Your task to perform on an android device: open chrome privacy settings Image 0: 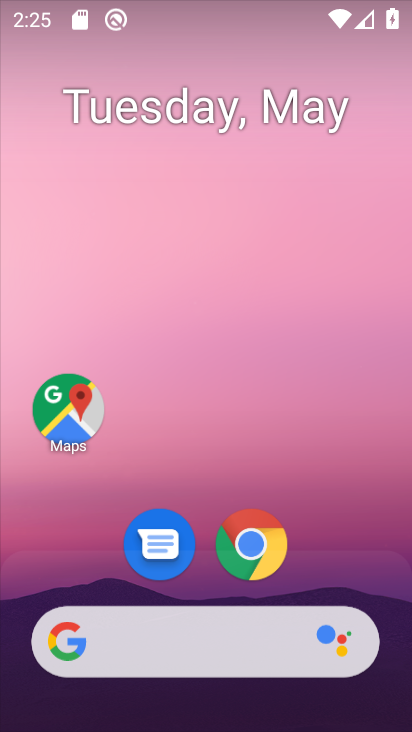
Step 0: click (252, 544)
Your task to perform on an android device: open chrome privacy settings Image 1: 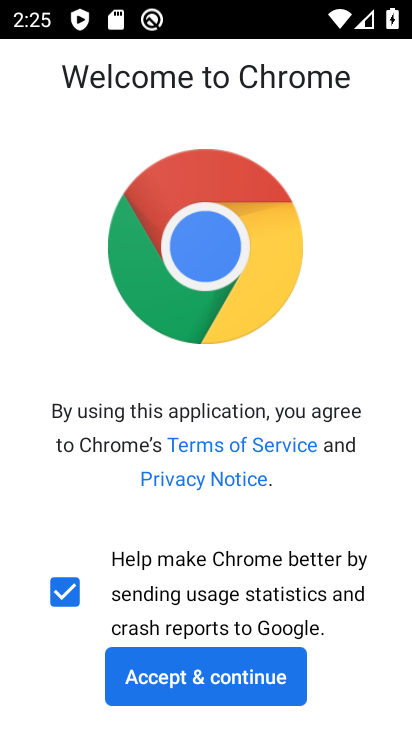
Step 1: click (197, 669)
Your task to perform on an android device: open chrome privacy settings Image 2: 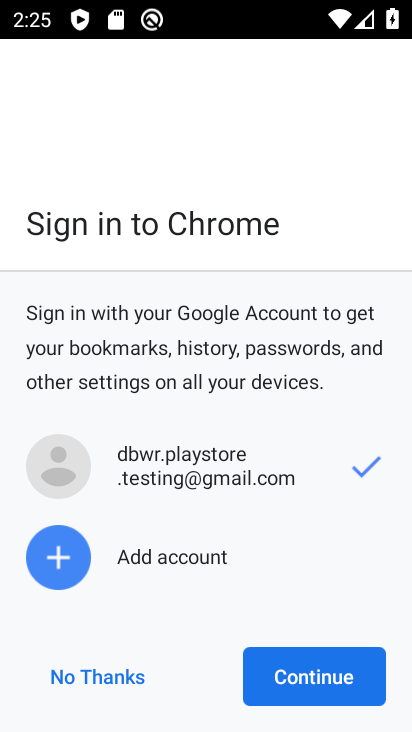
Step 2: click (306, 667)
Your task to perform on an android device: open chrome privacy settings Image 3: 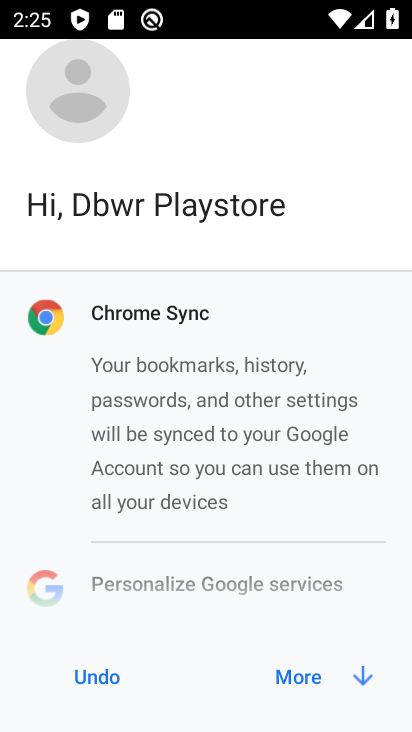
Step 3: click (306, 667)
Your task to perform on an android device: open chrome privacy settings Image 4: 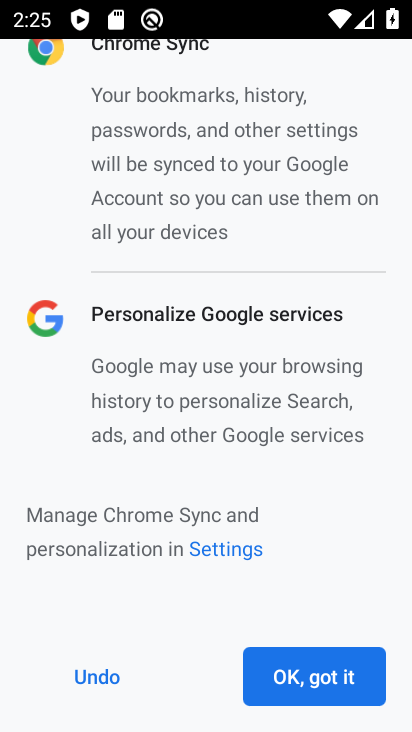
Step 4: click (308, 679)
Your task to perform on an android device: open chrome privacy settings Image 5: 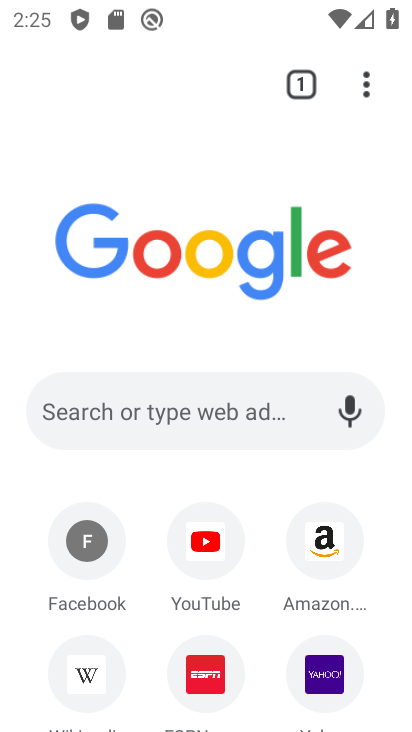
Step 5: click (367, 83)
Your task to perform on an android device: open chrome privacy settings Image 6: 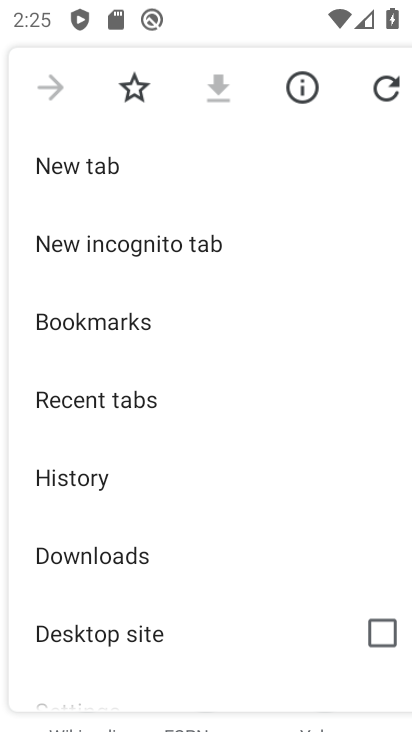
Step 6: drag from (141, 579) to (219, 423)
Your task to perform on an android device: open chrome privacy settings Image 7: 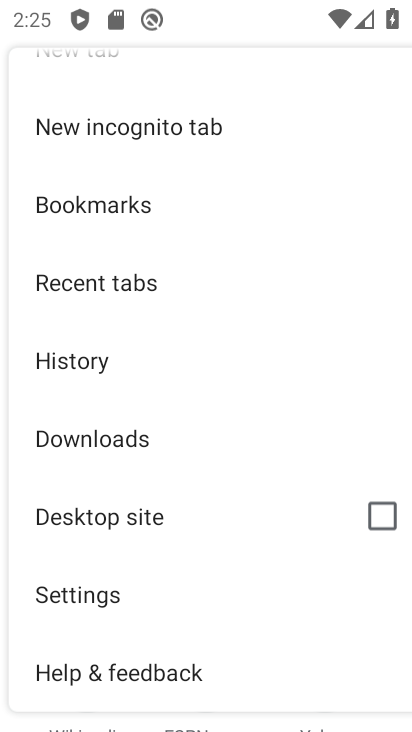
Step 7: click (105, 596)
Your task to perform on an android device: open chrome privacy settings Image 8: 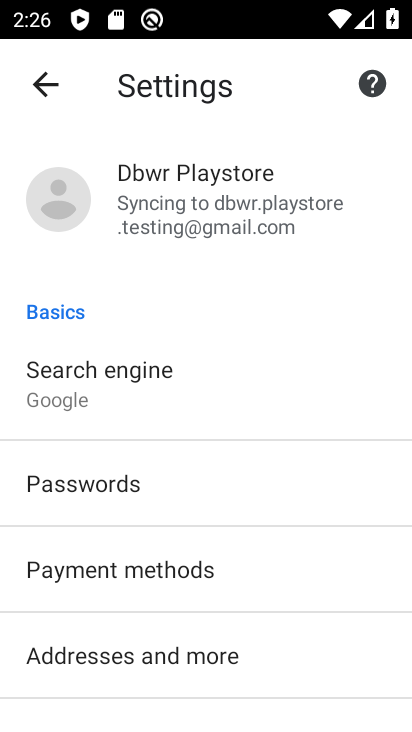
Step 8: drag from (240, 676) to (256, 560)
Your task to perform on an android device: open chrome privacy settings Image 9: 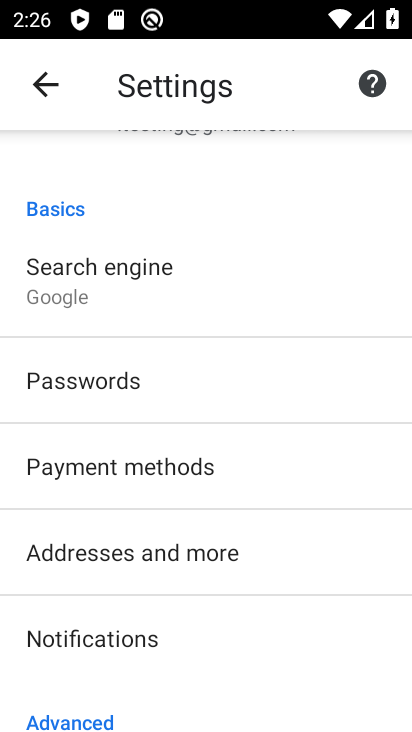
Step 9: drag from (186, 671) to (242, 548)
Your task to perform on an android device: open chrome privacy settings Image 10: 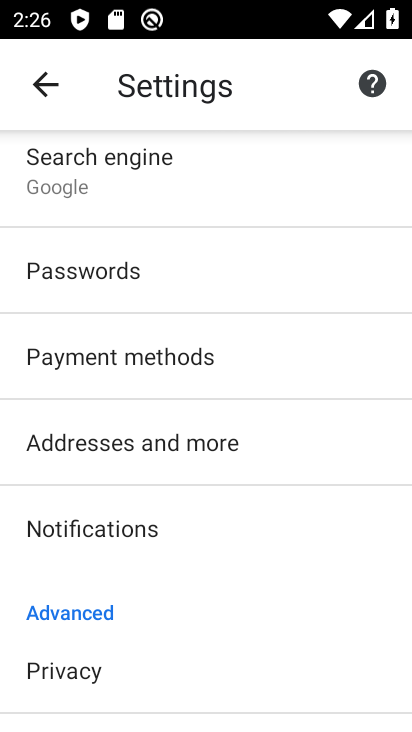
Step 10: drag from (141, 677) to (198, 549)
Your task to perform on an android device: open chrome privacy settings Image 11: 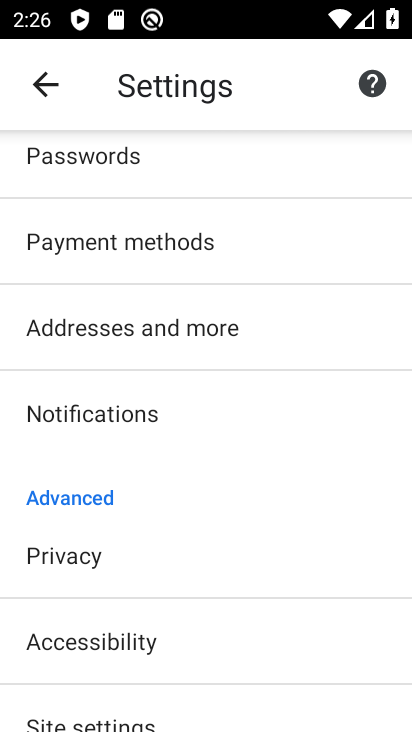
Step 11: click (63, 552)
Your task to perform on an android device: open chrome privacy settings Image 12: 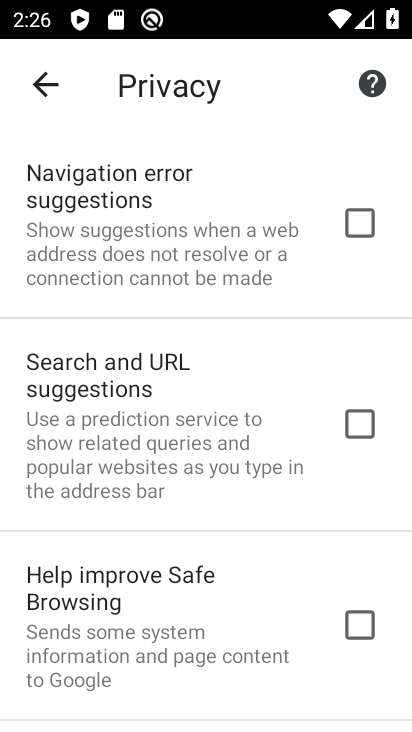
Step 12: task complete